Your task to perform on an android device: Open the Play Movies app and select the watchlist tab. Image 0: 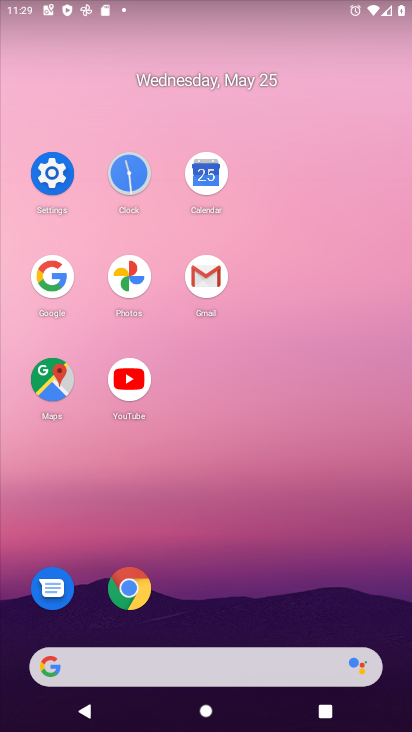
Step 0: drag from (290, 591) to (327, 140)
Your task to perform on an android device: Open the Play Movies app and select the watchlist tab. Image 1: 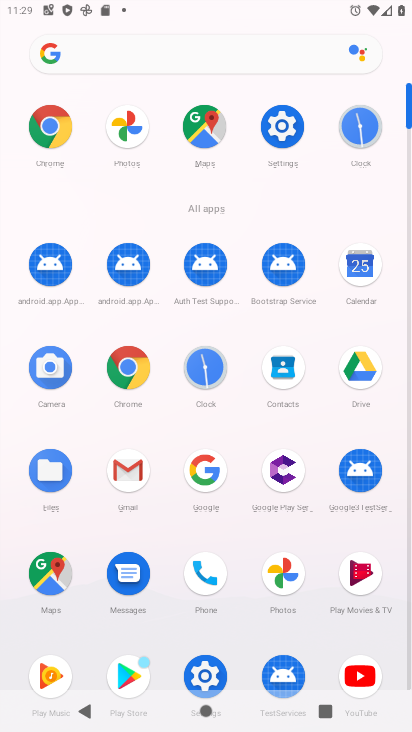
Step 1: click (350, 568)
Your task to perform on an android device: Open the Play Movies app and select the watchlist tab. Image 2: 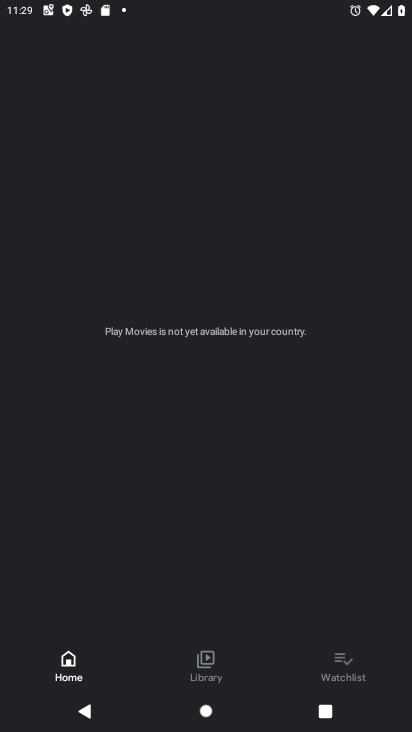
Step 2: click (346, 658)
Your task to perform on an android device: Open the Play Movies app and select the watchlist tab. Image 3: 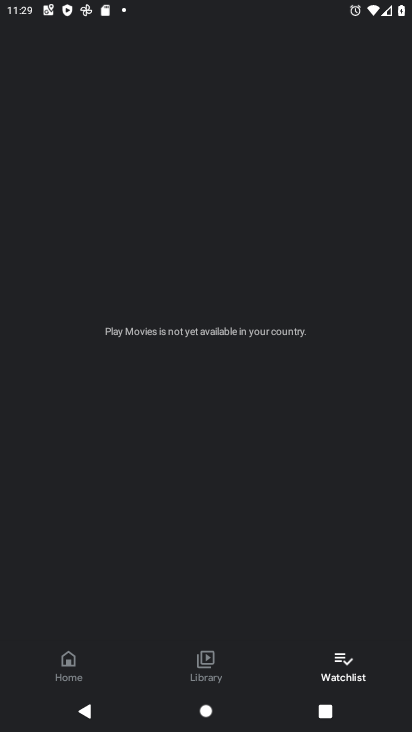
Step 3: task complete